Your task to perform on an android device: Open the web browser Image 0: 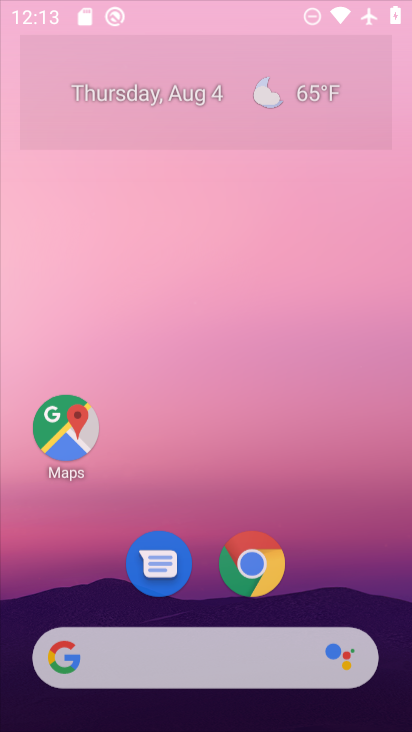
Step 0: press home button
Your task to perform on an android device: Open the web browser Image 1: 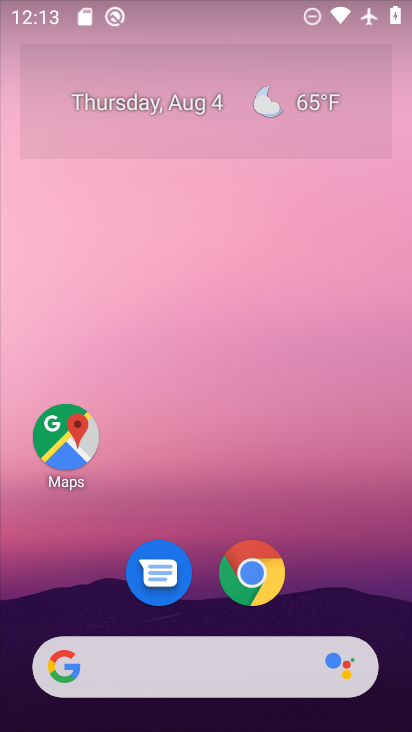
Step 1: drag from (324, 551) to (275, 109)
Your task to perform on an android device: Open the web browser Image 2: 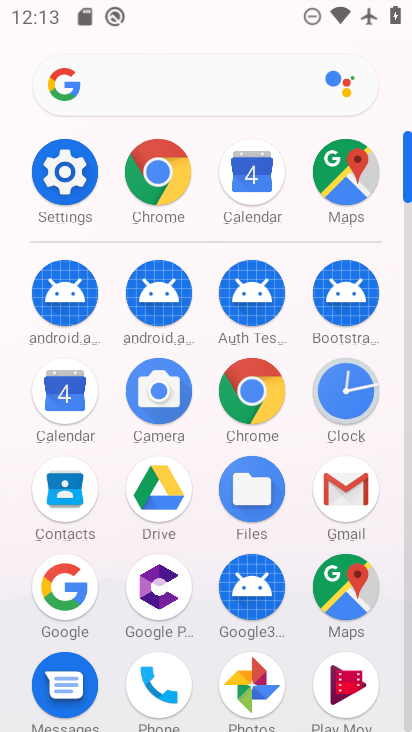
Step 2: click (252, 382)
Your task to perform on an android device: Open the web browser Image 3: 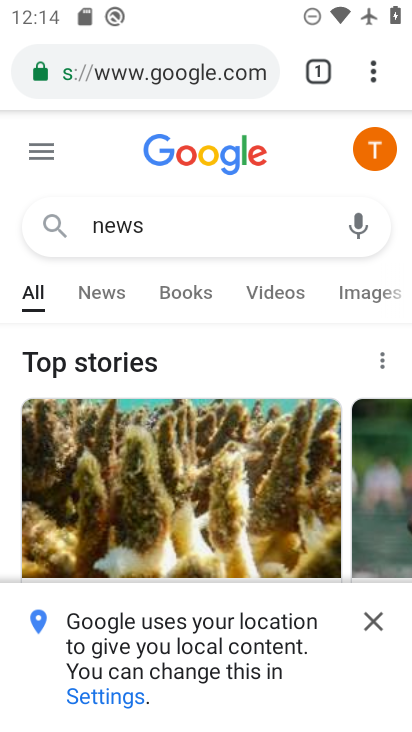
Step 3: task complete